Your task to perform on an android device: toggle location history Image 0: 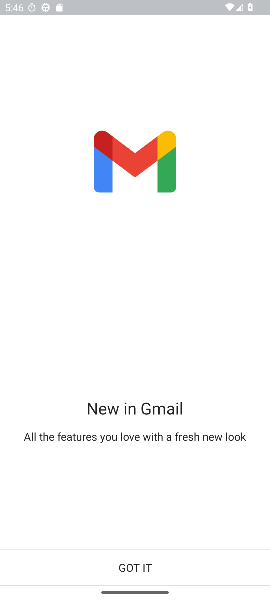
Step 0: press home button
Your task to perform on an android device: toggle location history Image 1: 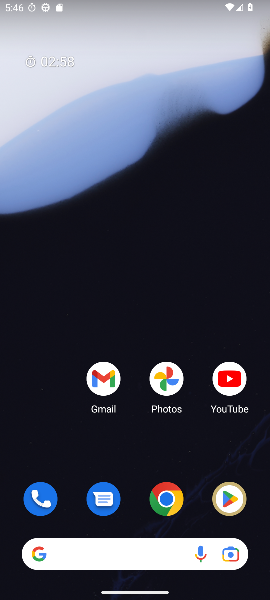
Step 1: drag from (144, 454) to (132, 18)
Your task to perform on an android device: toggle location history Image 2: 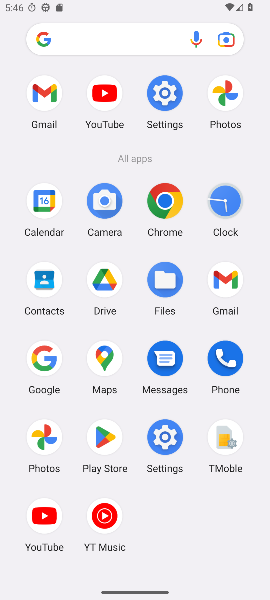
Step 2: click (177, 98)
Your task to perform on an android device: toggle location history Image 3: 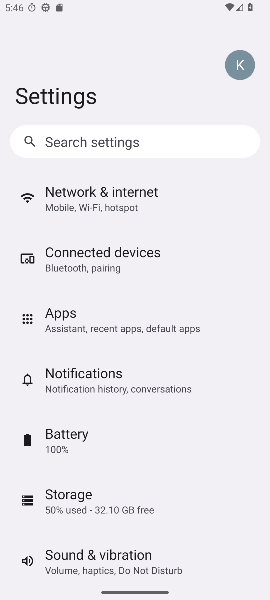
Step 3: drag from (134, 551) to (95, 125)
Your task to perform on an android device: toggle location history Image 4: 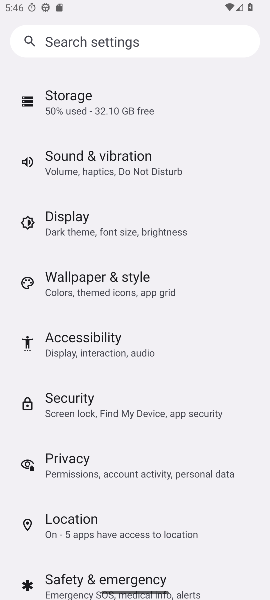
Step 4: click (76, 525)
Your task to perform on an android device: toggle location history Image 5: 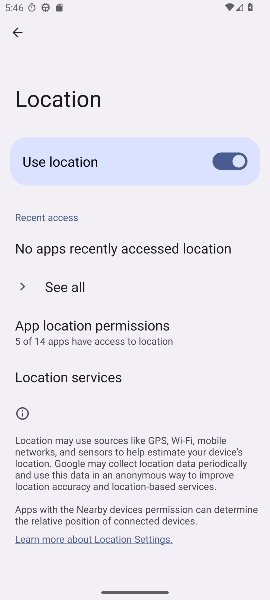
Step 5: task complete